Your task to perform on an android device: turn on translation in the chrome app Image 0: 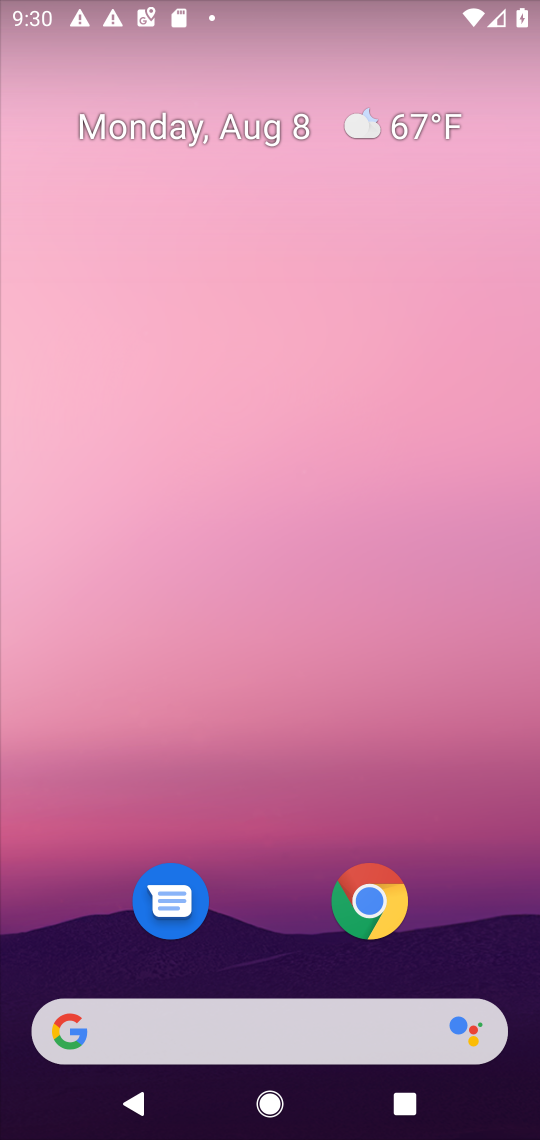
Step 0: drag from (280, 929) to (361, 901)
Your task to perform on an android device: turn on translation in the chrome app Image 1: 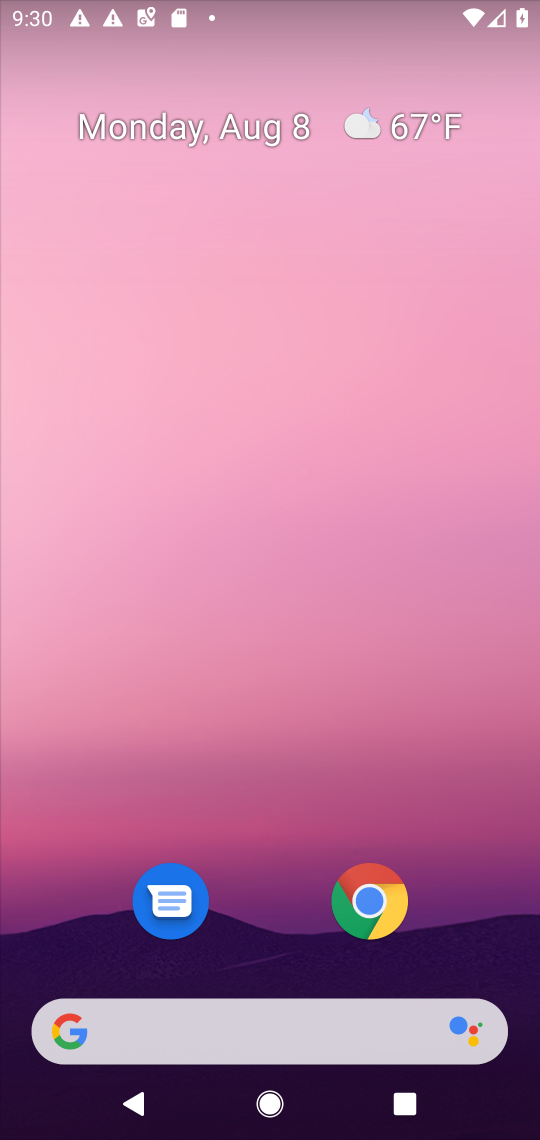
Step 1: click (361, 901)
Your task to perform on an android device: turn on translation in the chrome app Image 2: 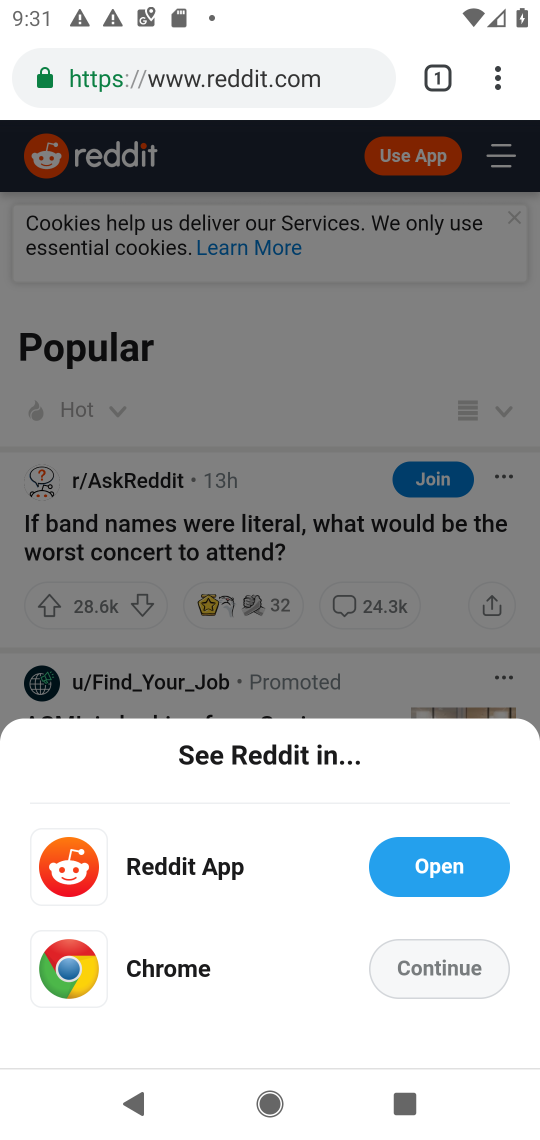
Step 2: click (421, 987)
Your task to perform on an android device: turn on translation in the chrome app Image 3: 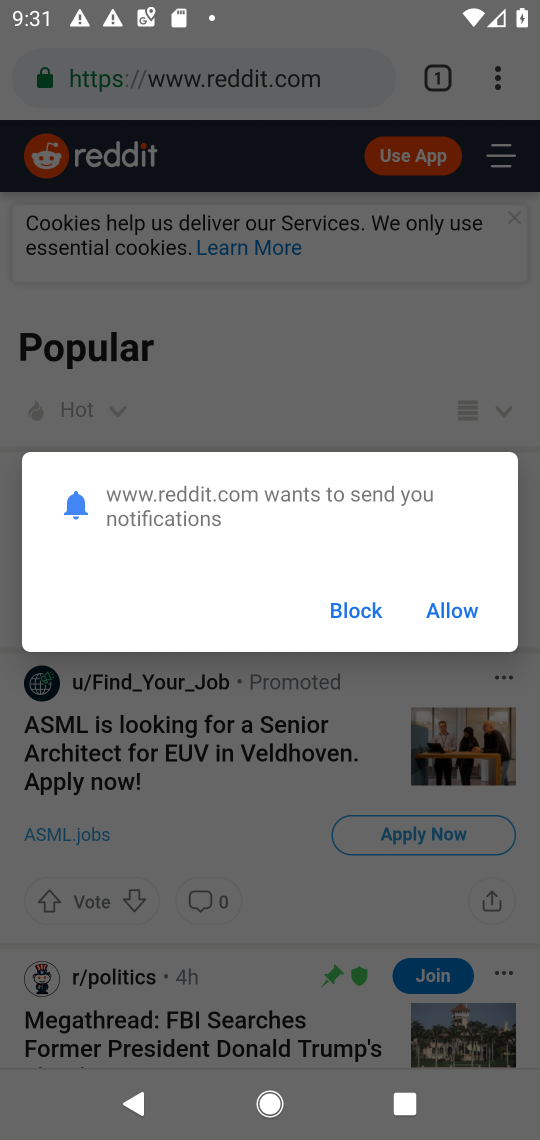
Step 3: click (441, 606)
Your task to perform on an android device: turn on translation in the chrome app Image 4: 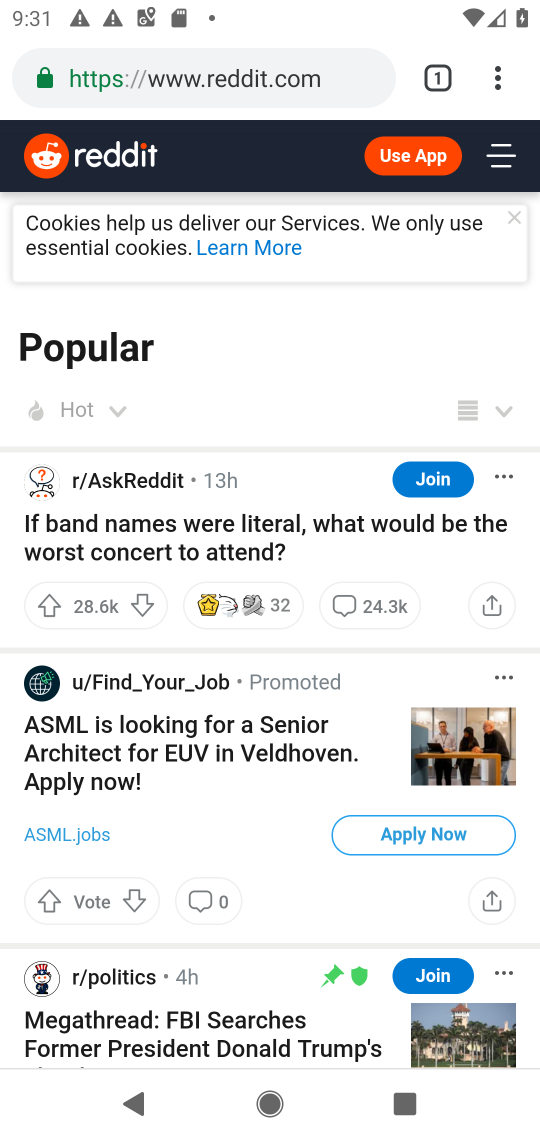
Step 4: click (491, 83)
Your task to perform on an android device: turn on translation in the chrome app Image 5: 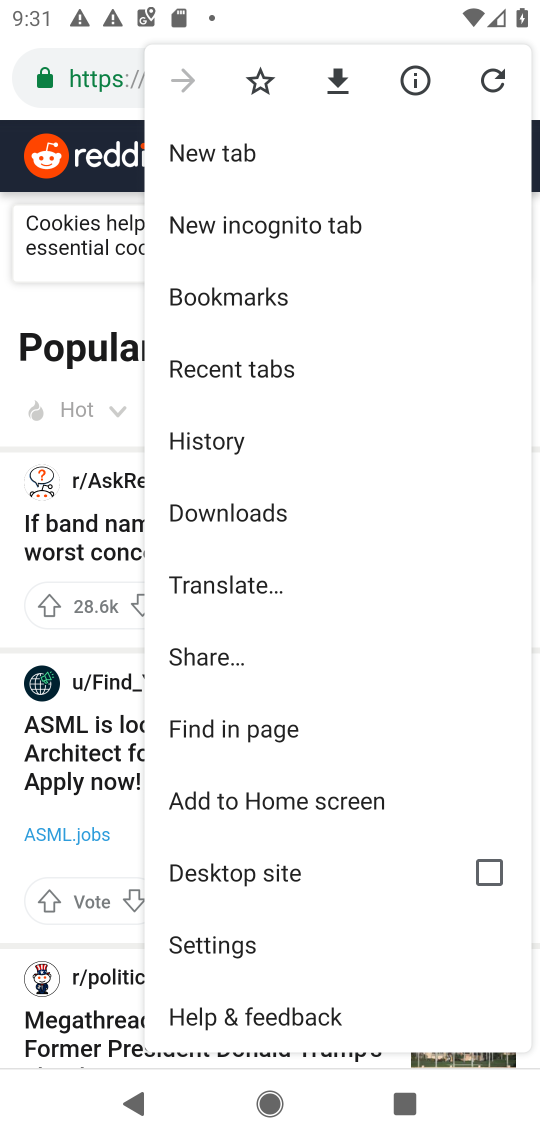
Step 5: click (207, 930)
Your task to perform on an android device: turn on translation in the chrome app Image 6: 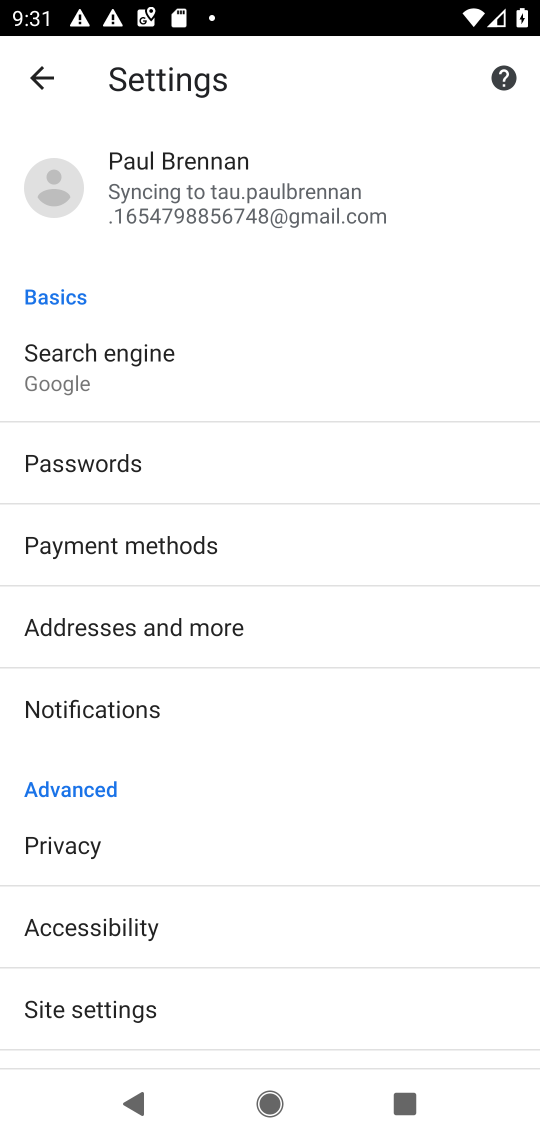
Step 6: drag from (145, 922) to (145, 538)
Your task to perform on an android device: turn on translation in the chrome app Image 7: 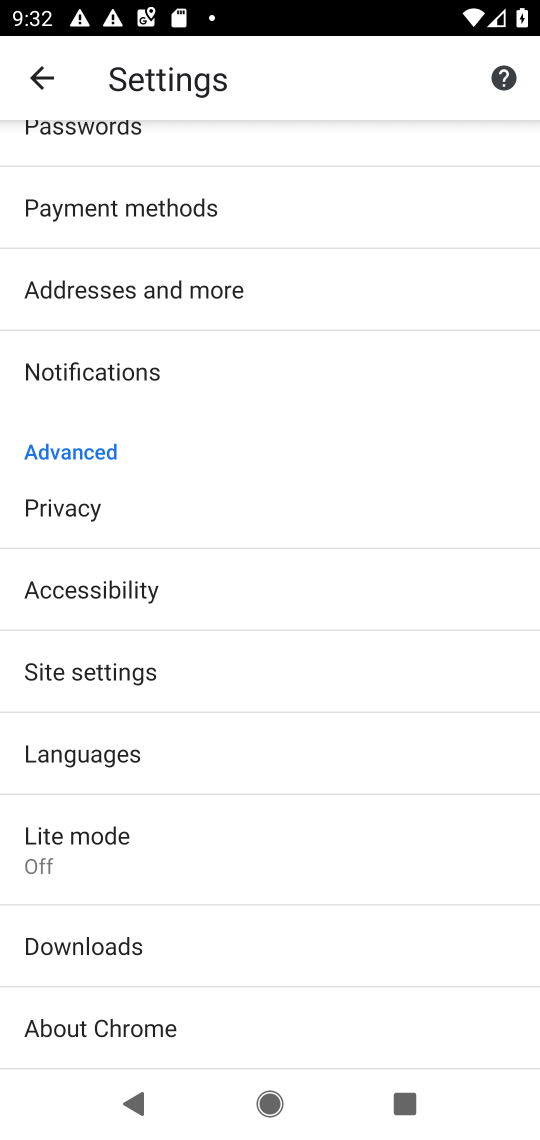
Step 7: click (108, 757)
Your task to perform on an android device: turn on translation in the chrome app Image 8: 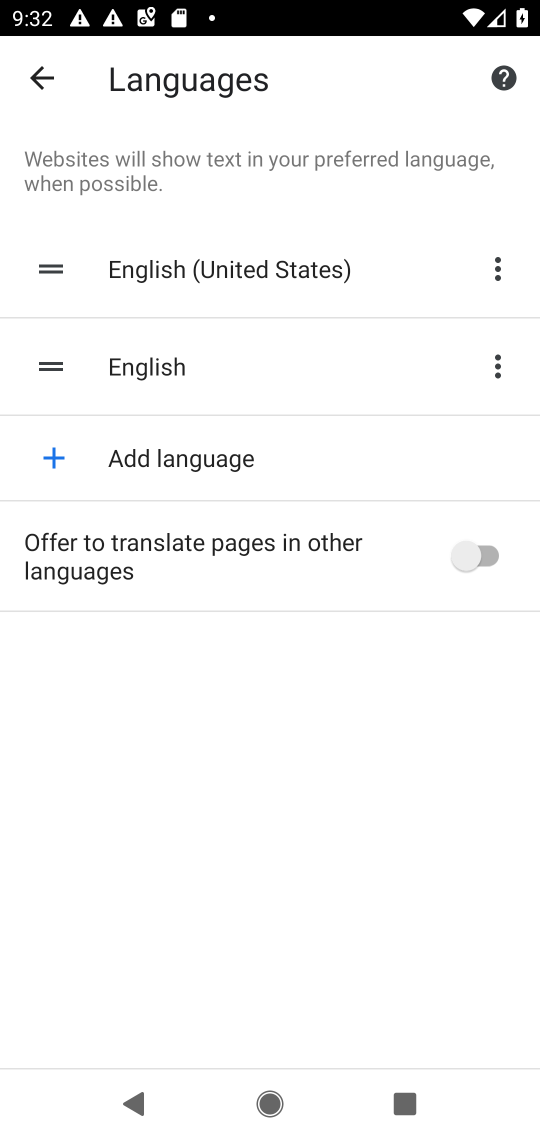
Step 8: click (490, 552)
Your task to perform on an android device: turn on translation in the chrome app Image 9: 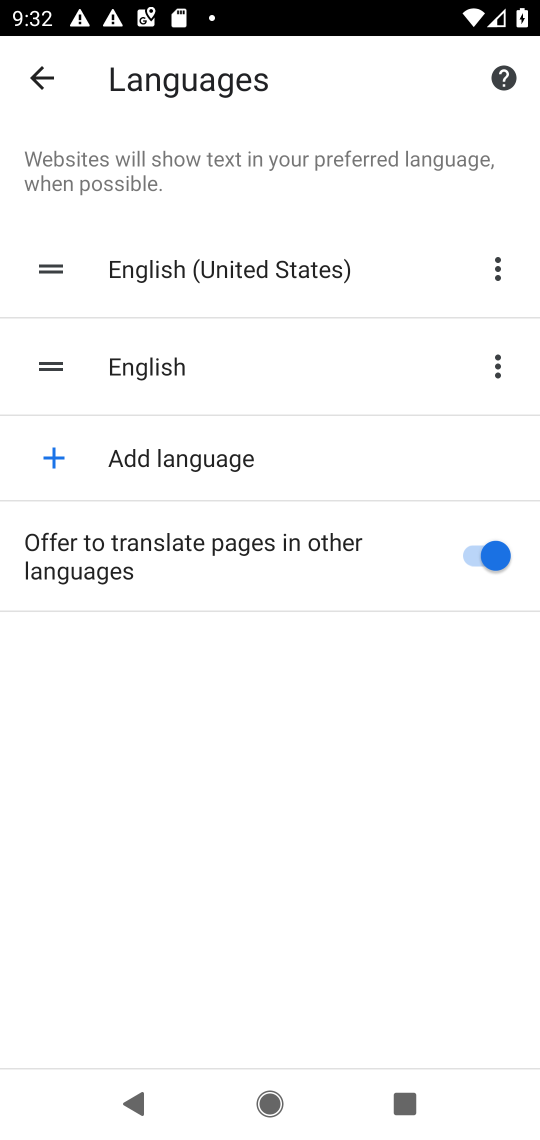
Step 9: task complete